Your task to perform on an android device: change the clock display to digital Image 0: 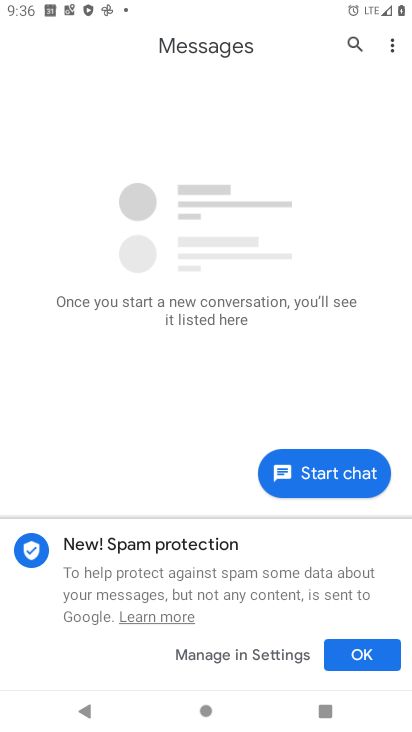
Step 0: press home button
Your task to perform on an android device: change the clock display to digital Image 1: 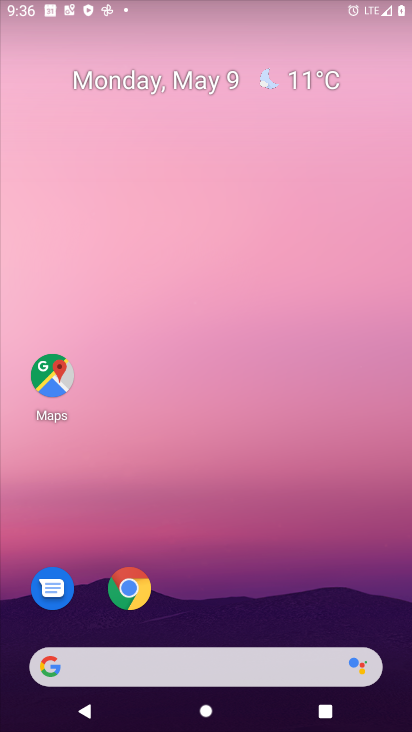
Step 1: drag from (350, 603) to (264, 55)
Your task to perform on an android device: change the clock display to digital Image 2: 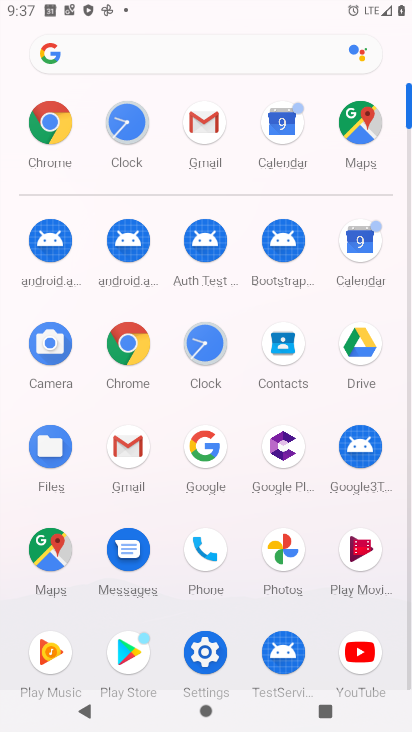
Step 2: click (217, 360)
Your task to perform on an android device: change the clock display to digital Image 3: 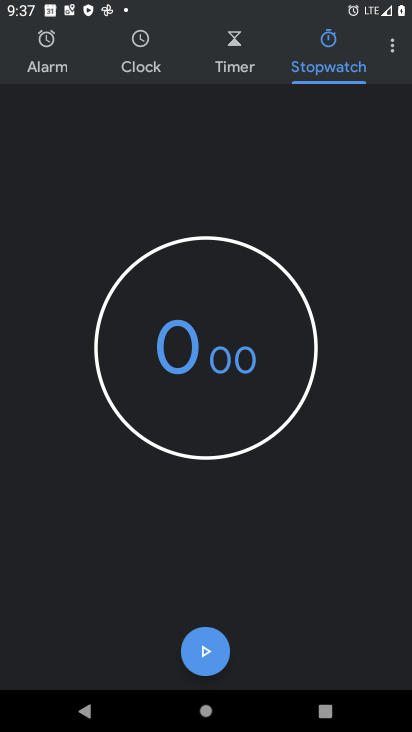
Step 3: click (381, 46)
Your task to perform on an android device: change the clock display to digital Image 4: 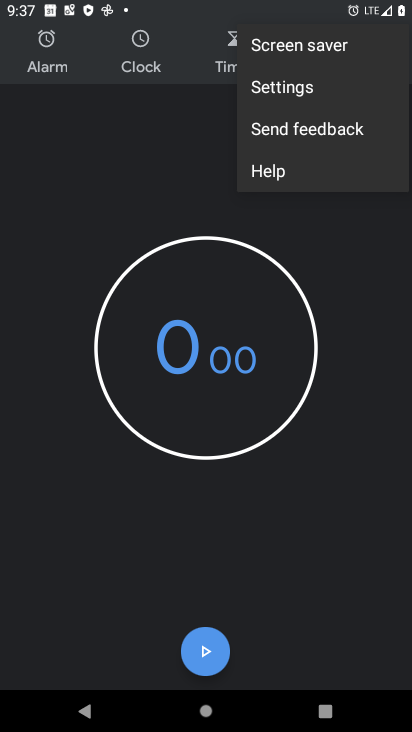
Step 4: click (305, 78)
Your task to perform on an android device: change the clock display to digital Image 5: 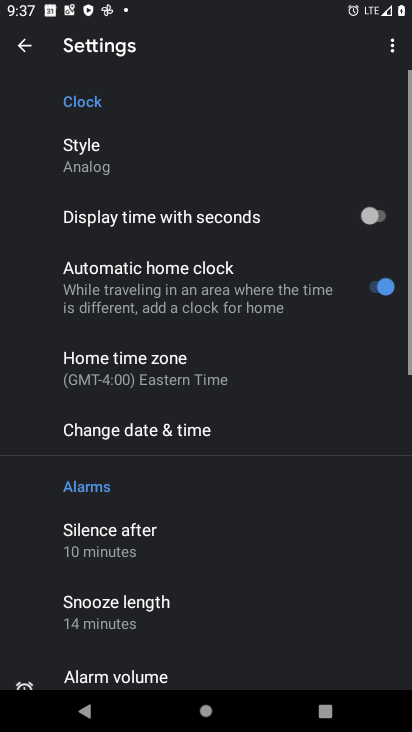
Step 5: click (102, 141)
Your task to perform on an android device: change the clock display to digital Image 6: 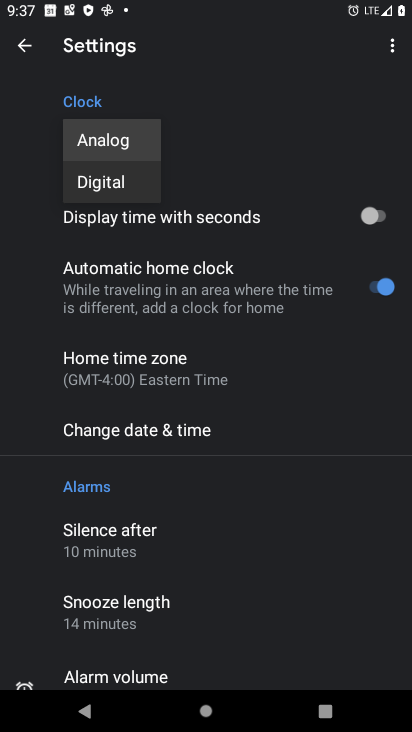
Step 6: click (114, 178)
Your task to perform on an android device: change the clock display to digital Image 7: 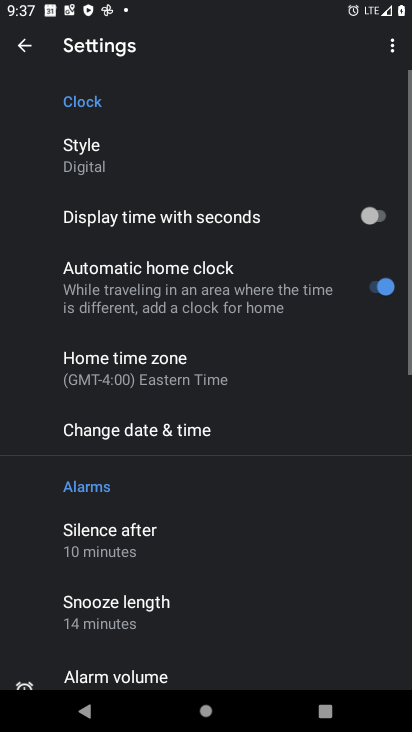
Step 7: task complete